Your task to perform on an android device: change the clock style Image 0: 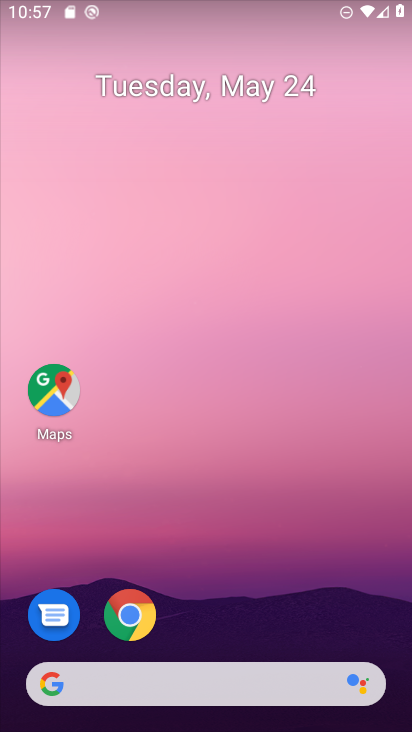
Step 0: press home button
Your task to perform on an android device: change the clock style Image 1: 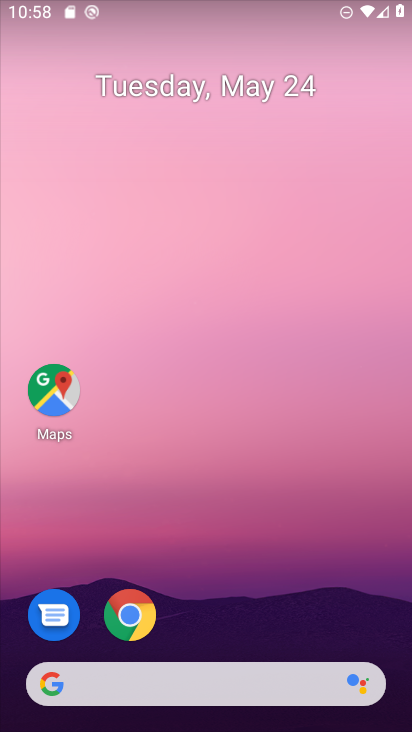
Step 1: drag from (267, 690) to (196, 125)
Your task to perform on an android device: change the clock style Image 2: 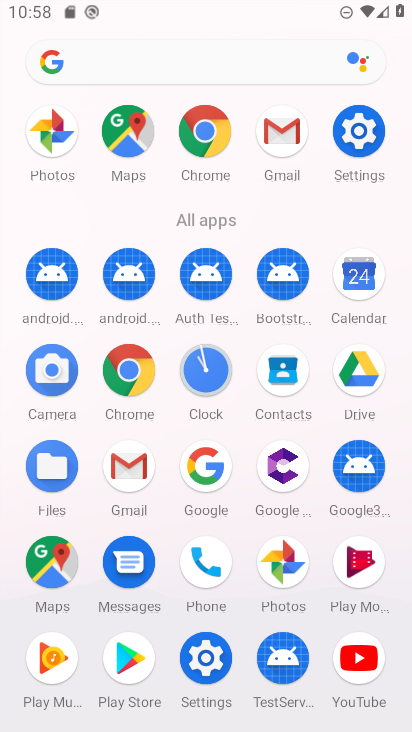
Step 2: click (216, 373)
Your task to perform on an android device: change the clock style Image 3: 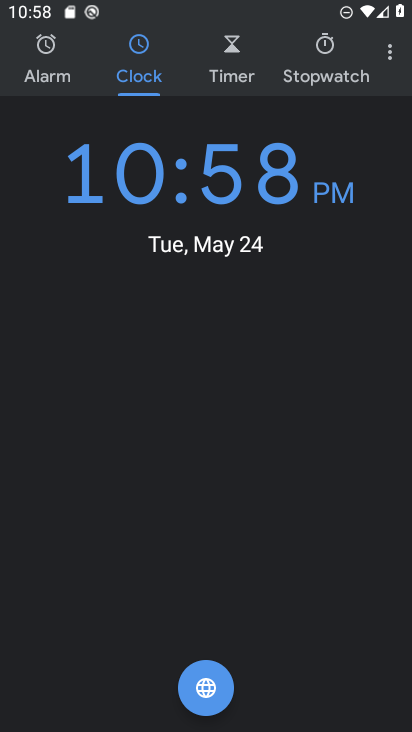
Step 3: click (395, 53)
Your task to perform on an android device: change the clock style Image 4: 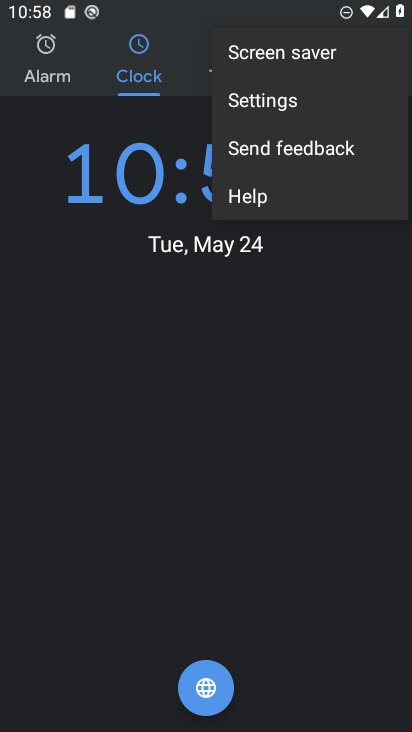
Step 4: click (251, 108)
Your task to perform on an android device: change the clock style Image 5: 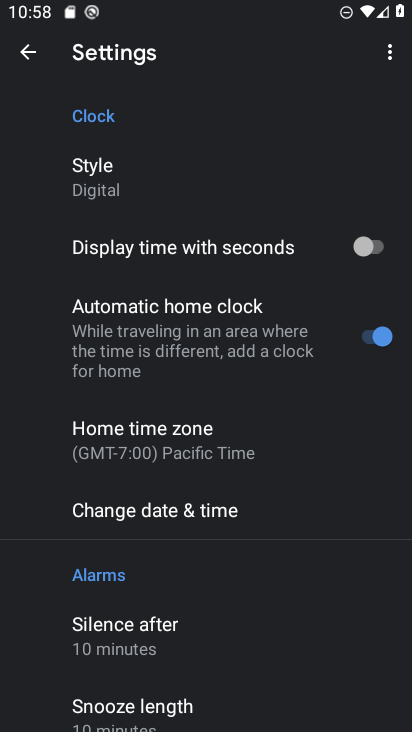
Step 5: click (126, 187)
Your task to perform on an android device: change the clock style Image 6: 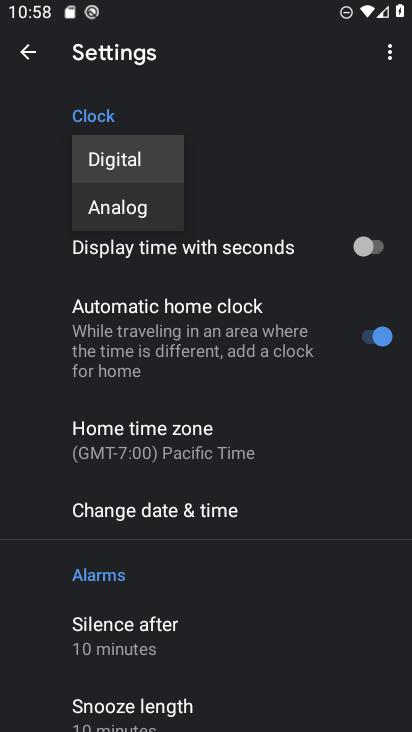
Step 6: click (145, 215)
Your task to perform on an android device: change the clock style Image 7: 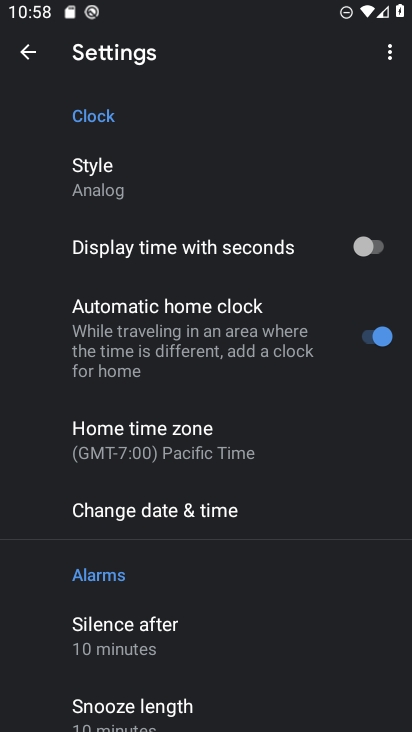
Step 7: task complete